Your task to perform on an android device: star an email in the gmail app Image 0: 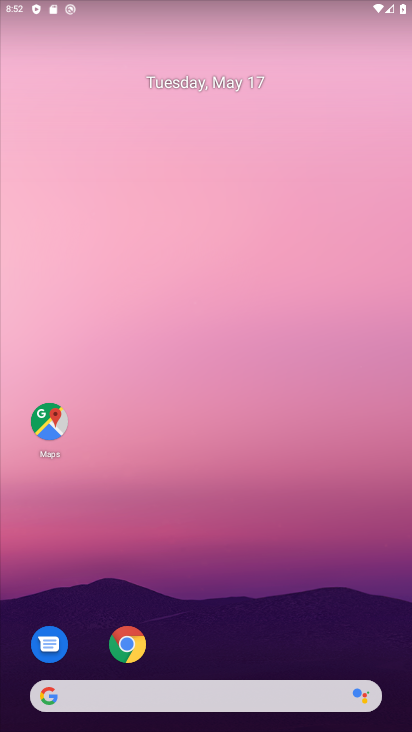
Step 0: drag from (211, 605) to (209, 39)
Your task to perform on an android device: star an email in the gmail app Image 1: 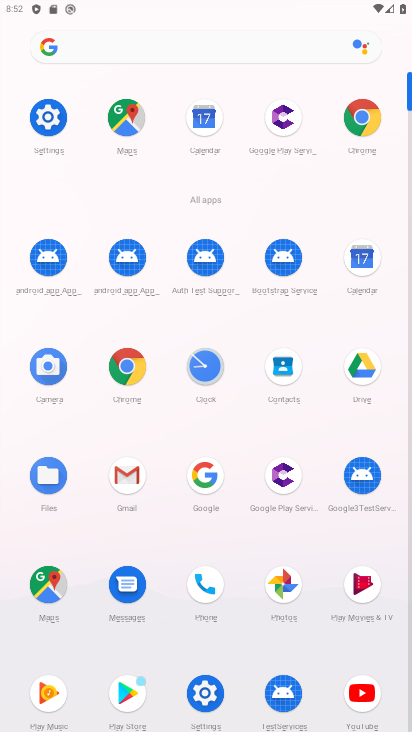
Step 1: click (125, 473)
Your task to perform on an android device: star an email in the gmail app Image 2: 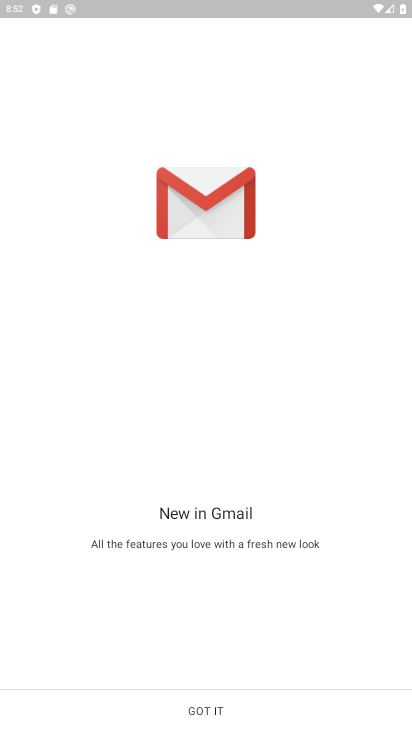
Step 2: click (211, 716)
Your task to perform on an android device: star an email in the gmail app Image 3: 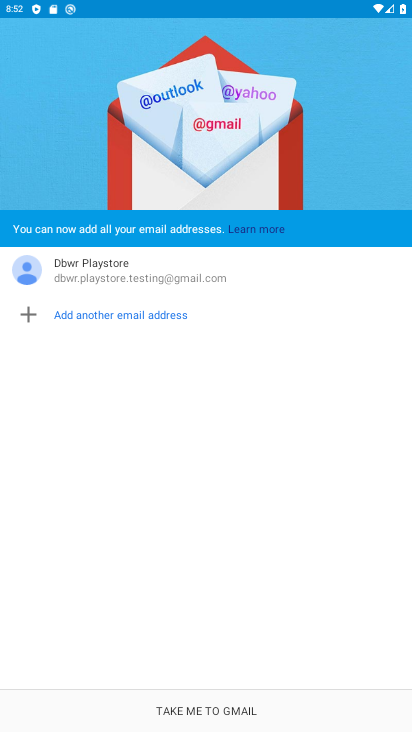
Step 3: click (200, 718)
Your task to perform on an android device: star an email in the gmail app Image 4: 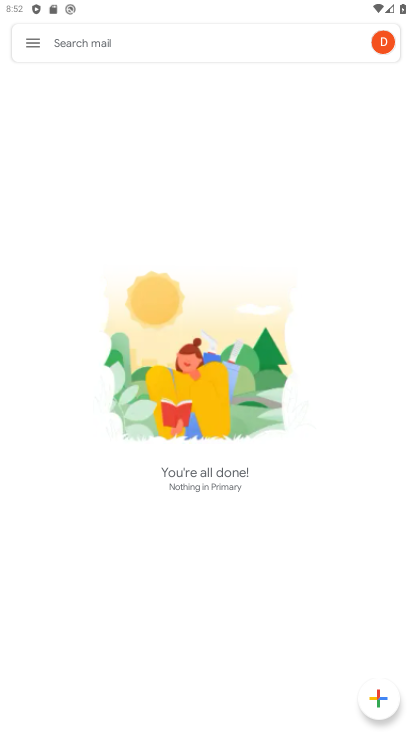
Step 4: task complete